Your task to perform on an android device: Find the nearest electronics store that's open Image 0: 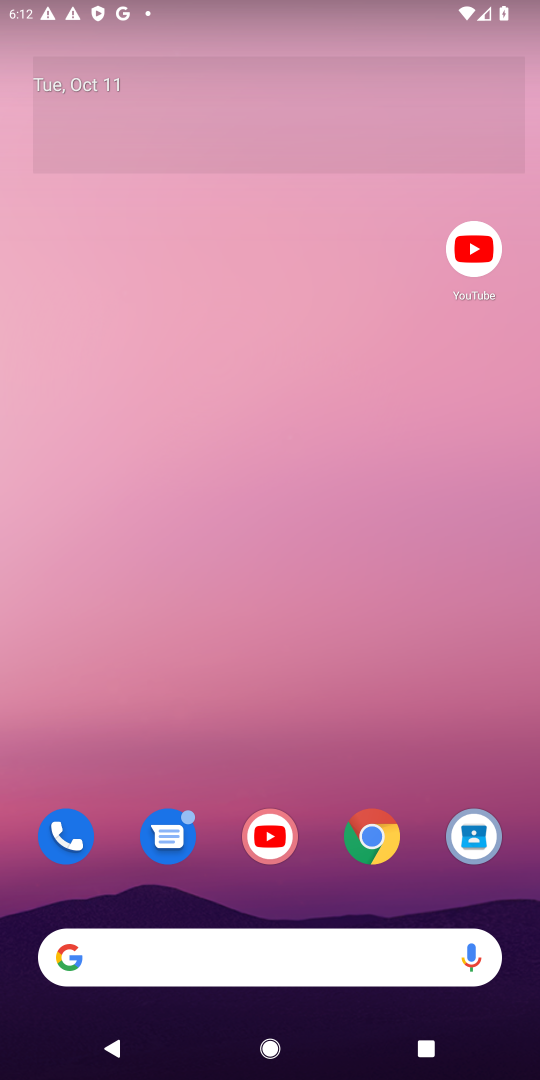
Step 0: click (373, 835)
Your task to perform on an android device: Find the nearest electronics store that's open Image 1: 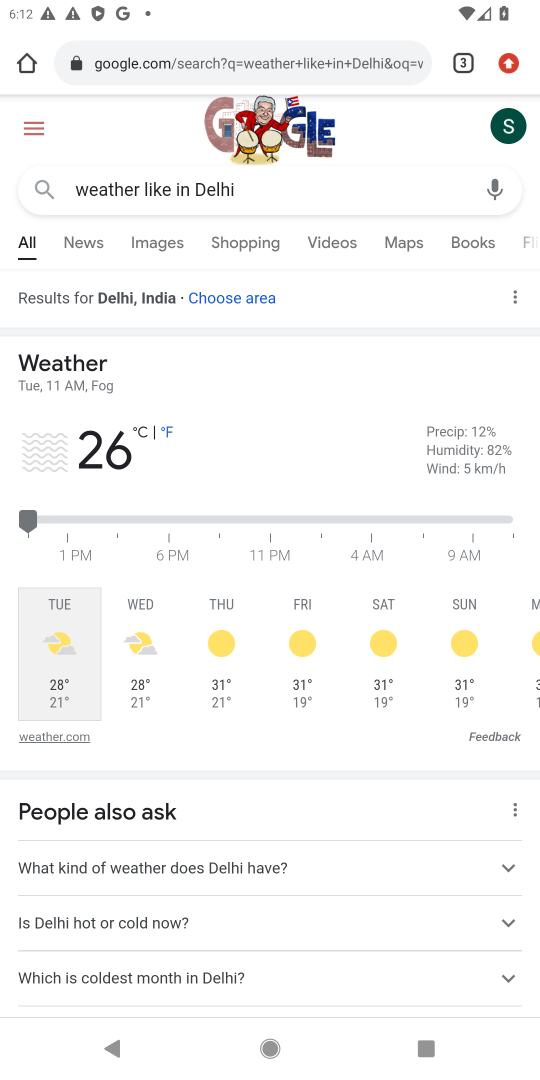
Step 1: click (380, 56)
Your task to perform on an android device: Find the nearest electronics store that's open Image 2: 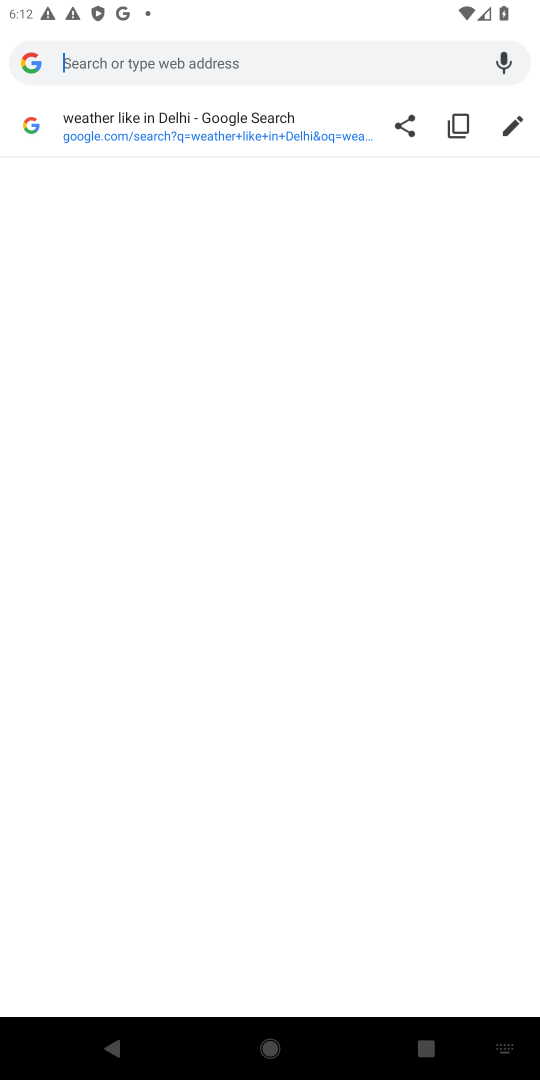
Step 2: type "nearest electronics store that's open"
Your task to perform on an android device: Find the nearest electronics store that's open Image 3: 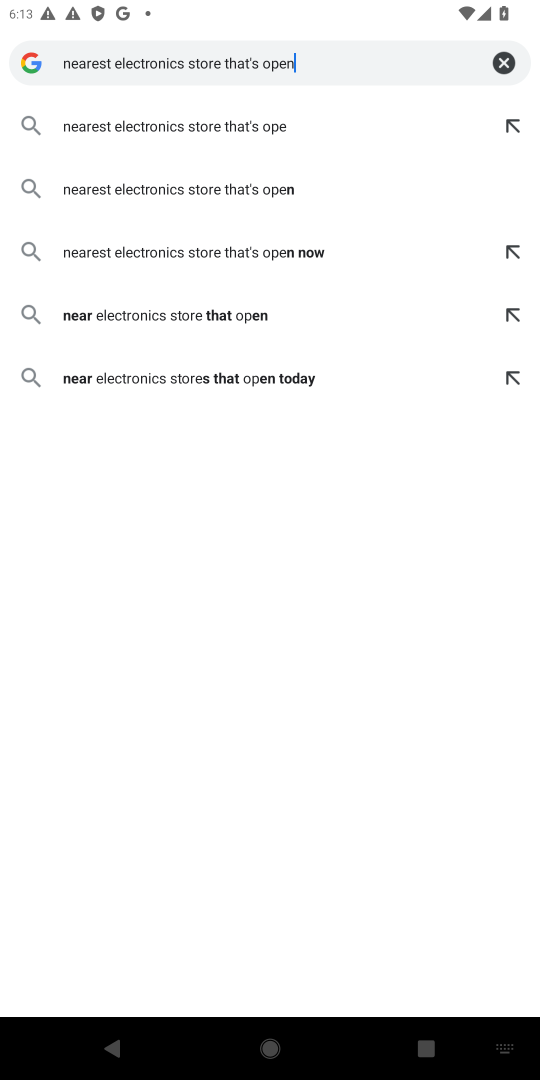
Step 3: press enter
Your task to perform on an android device: Find the nearest electronics store that's open Image 4: 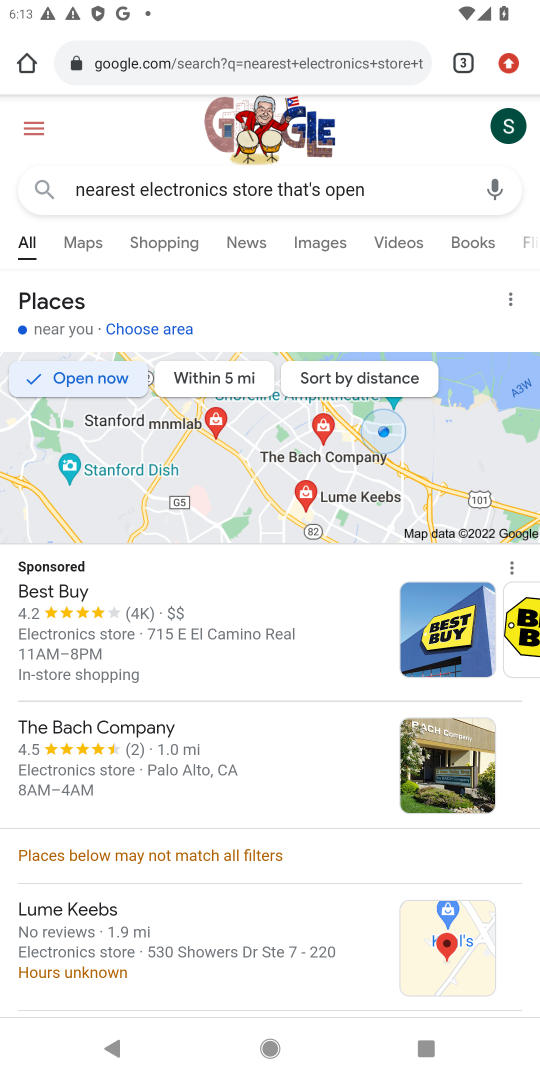
Step 4: drag from (181, 891) to (415, 440)
Your task to perform on an android device: Find the nearest electronics store that's open Image 5: 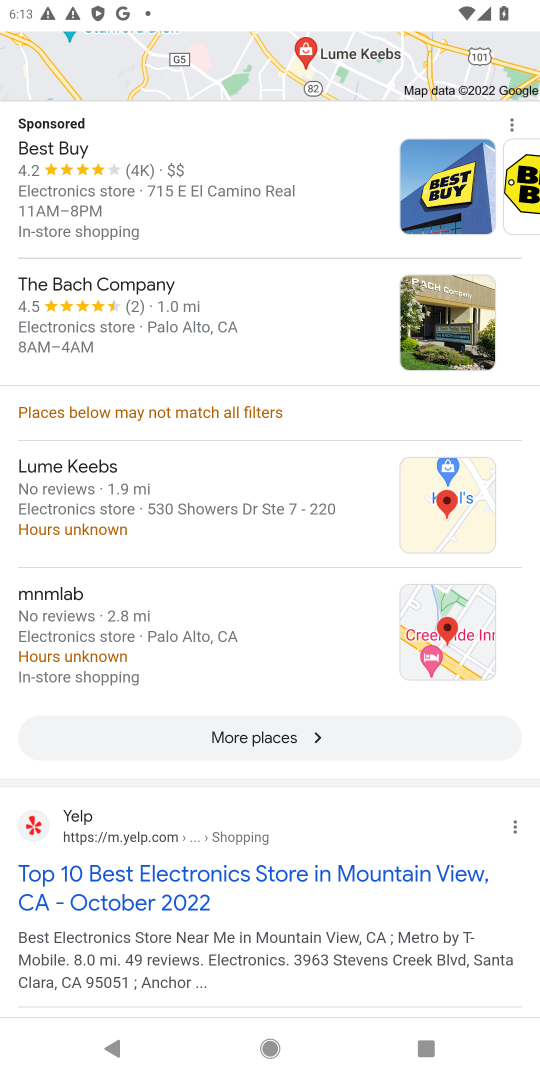
Step 5: click (154, 315)
Your task to perform on an android device: Find the nearest electronics store that's open Image 6: 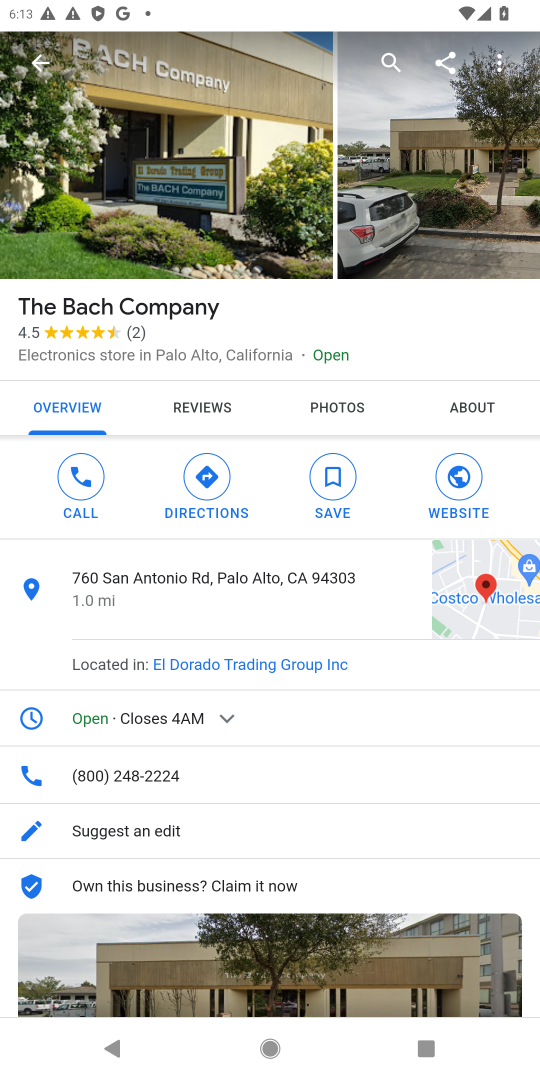
Step 6: task complete